Your task to perform on an android device: Open wifi settings Image 0: 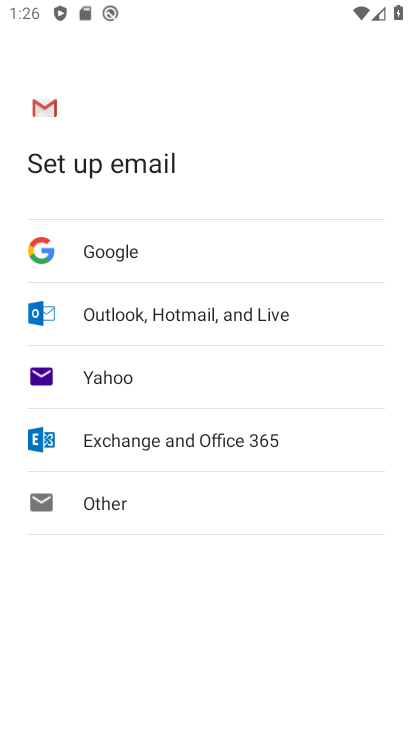
Step 0: press home button
Your task to perform on an android device: Open wifi settings Image 1: 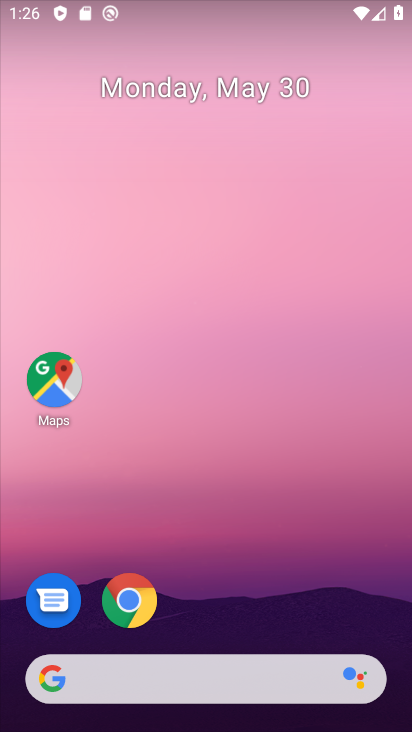
Step 1: drag from (206, 645) to (177, 9)
Your task to perform on an android device: Open wifi settings Image 2: 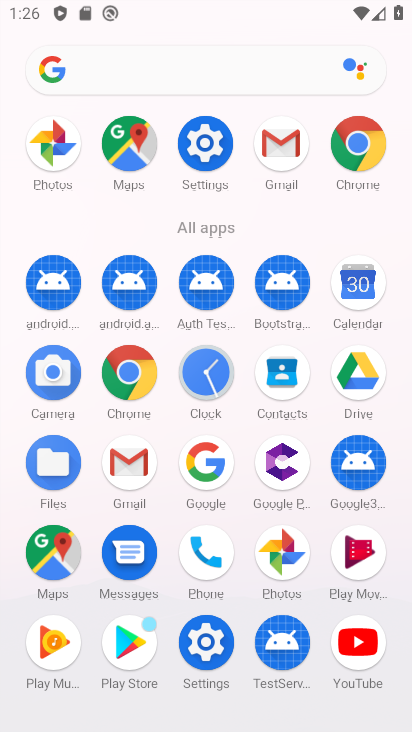
Step 2: click (205, 135)
Your task to perform on an android device: Open wifi settings Image 3: 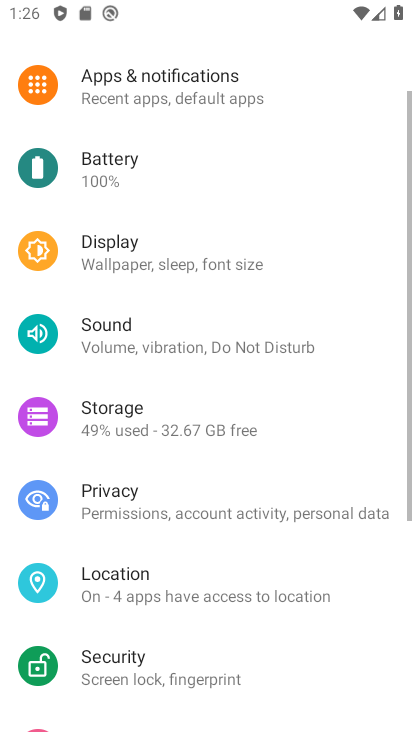
Step 3: drag from (206, 136) to (173, 586)
Your task to perform on an android device: Open wifi settings Image 4: 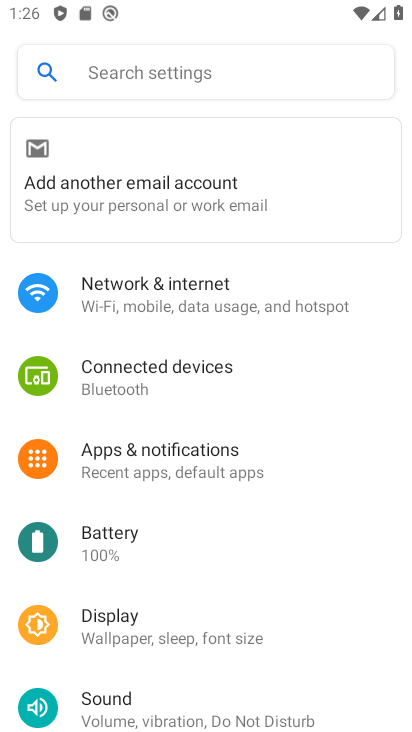
Step 4: click (185, 306)
Your task to perform on an android device: Open wifi settings Image 5: 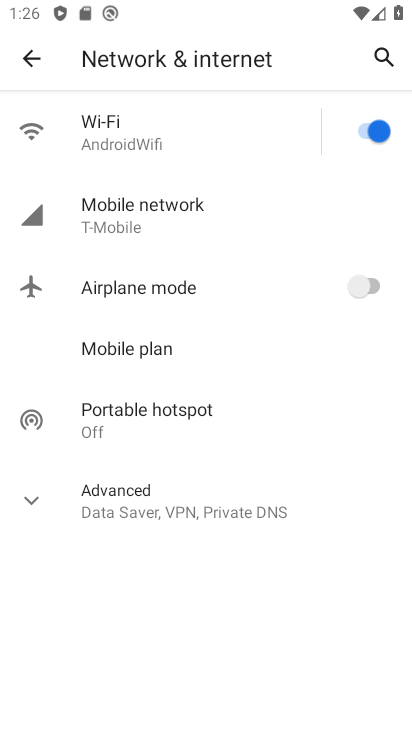
Step 5: click (114, 123)
Your task to perform on an android device: Open wifi settings Image 6: 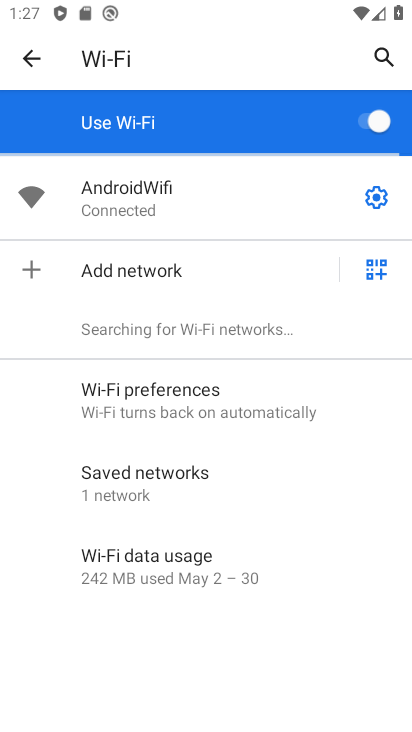
Step 6: task complete